Your task to perform on an android device: change notification settings in the gmail app Image 0: 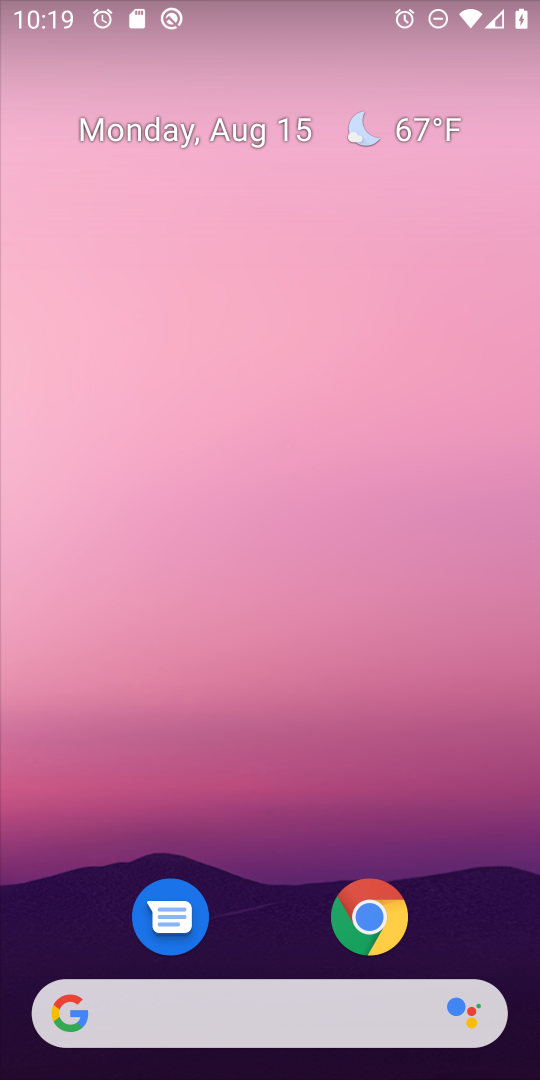
Step 0: drag from (260, 887) to (280, 14)
Your task to perform on an android device: change notification settings in the gmail app Image 1: 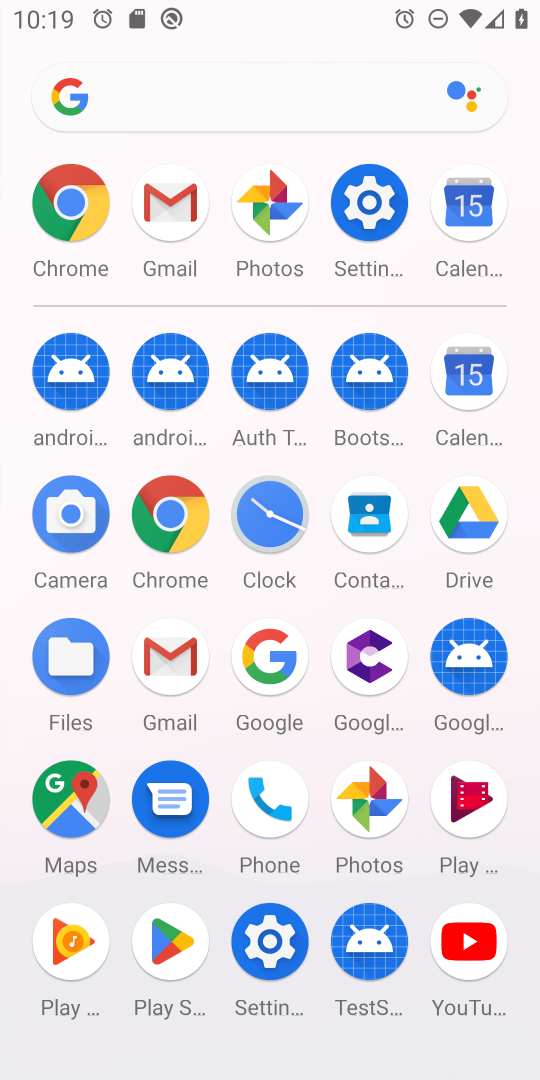
Step 1: click (164, 224)
Your task to perform on an android device: change notification settings in the gmail app Image 2: 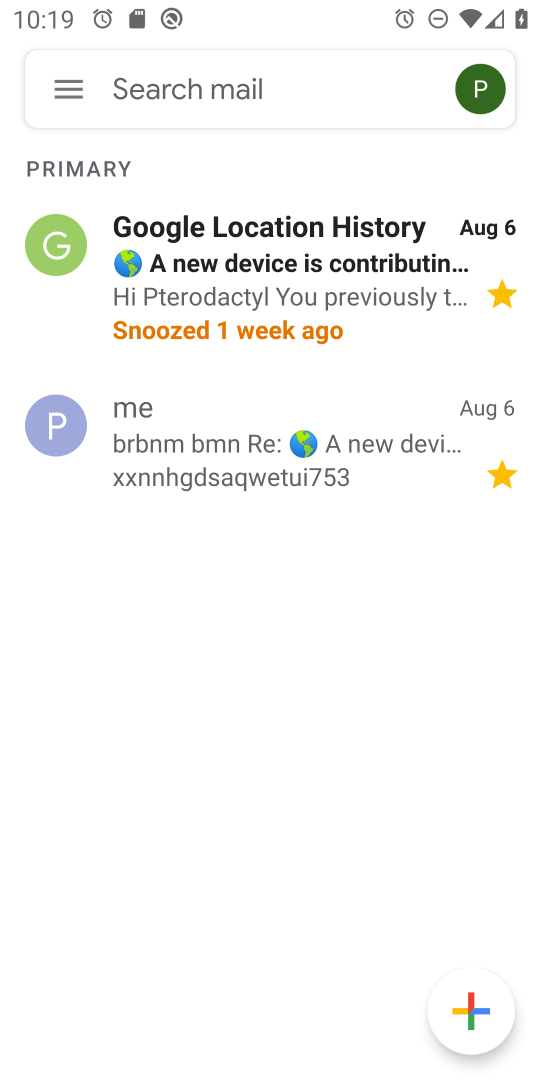
Step 2: click (76, 98)
Your task to perform on an android device: change notification settings in the gmail app Image 3: 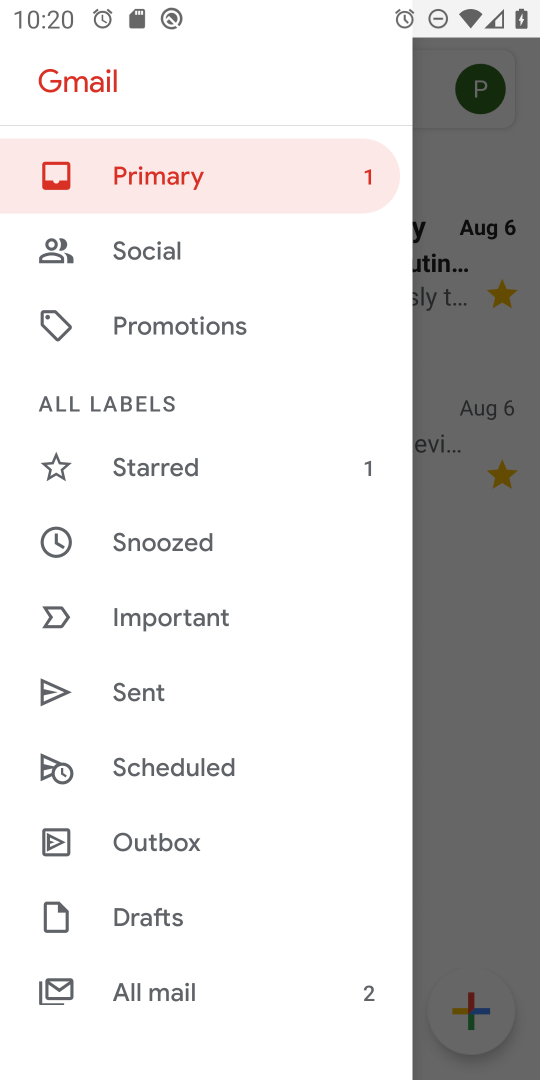
Step 3: drag from (306, 834) to (261, 244)
Your task to perform on an android device: change notification settings in the gmail app Image 4: 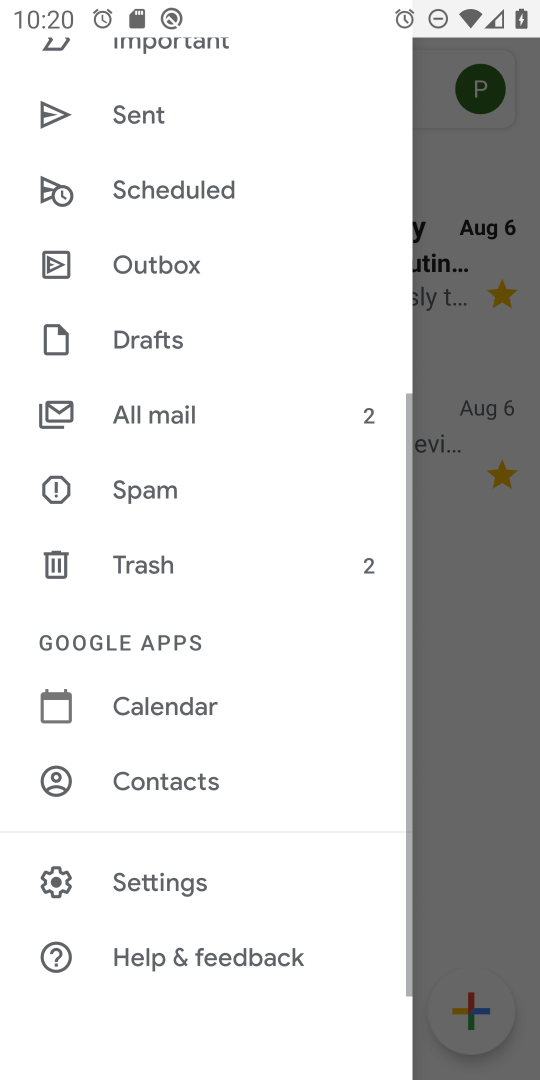
Step 4: drag from (169, 633) to (167, 325)
Your task to perform on an android device: change notification settings in the gmail app Image 5: 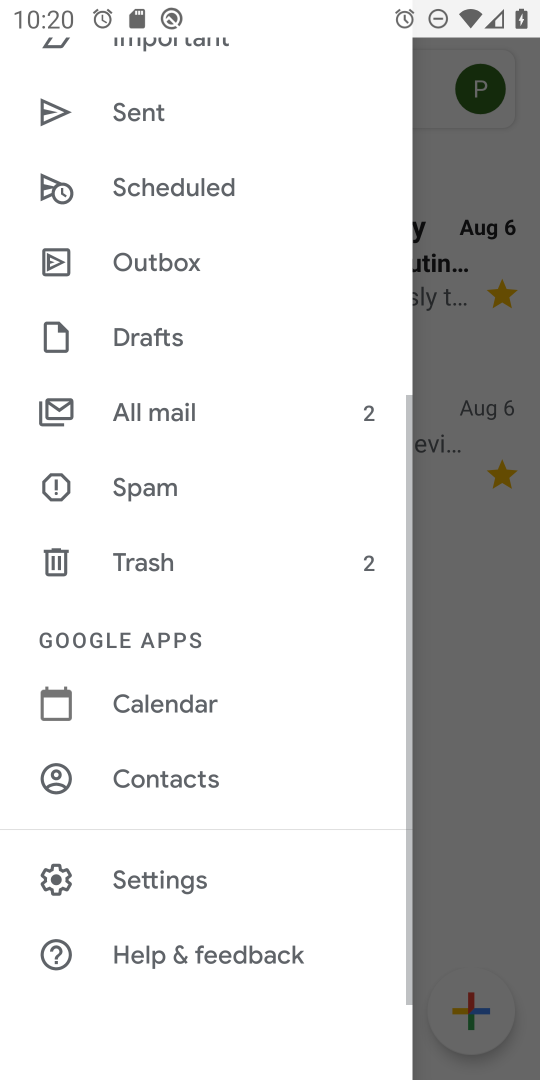
Step 5: click (190, 869)
Your task to perform on an android device: change notification settings in the gmail app Image 6: 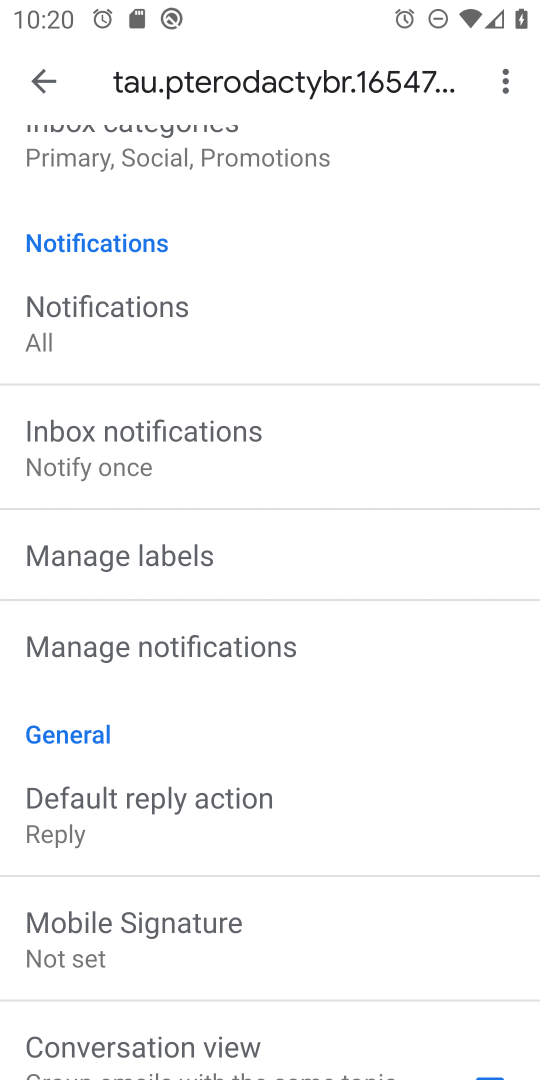
Step 6: click (293, 637)
Your task to perform on an android device: change notification settings in the gmail app Image 7: 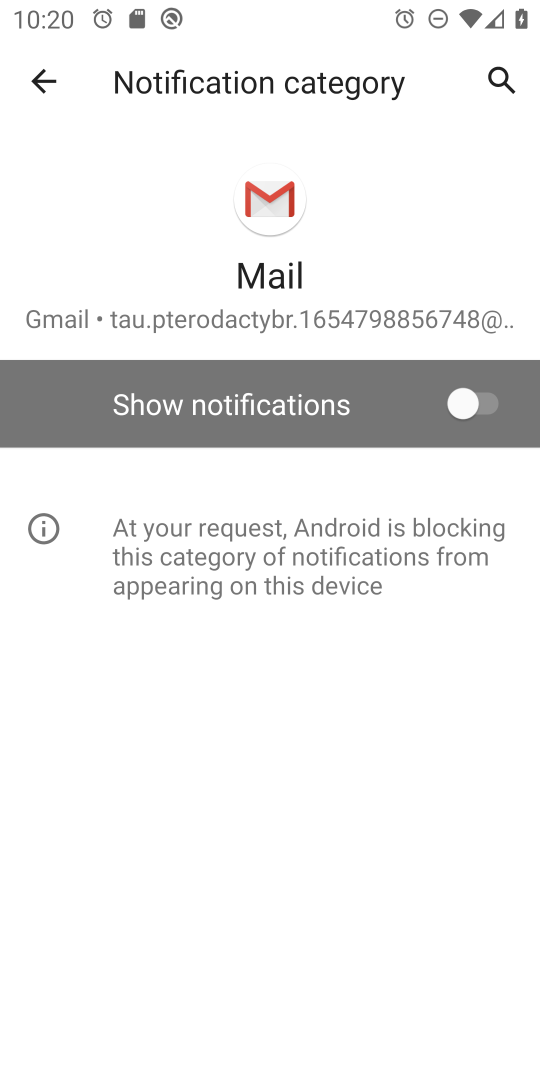
Step 7: click (469, 403)
Your task to perform on an android device: change notification settings in the gmail app Image 8: 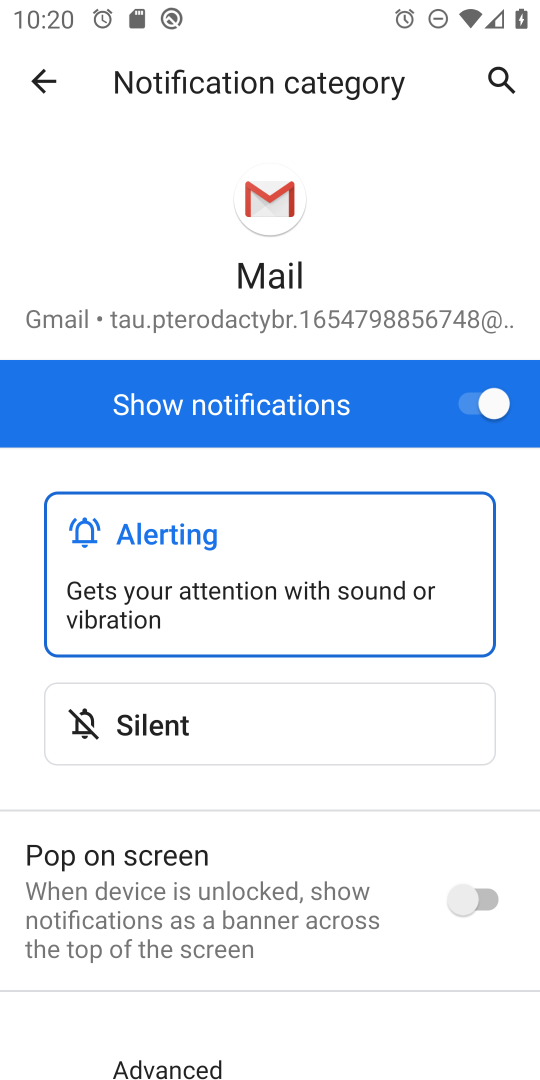
Step 8: task complete